Your task to perform on an android device: Open accessibility settings Image 0: 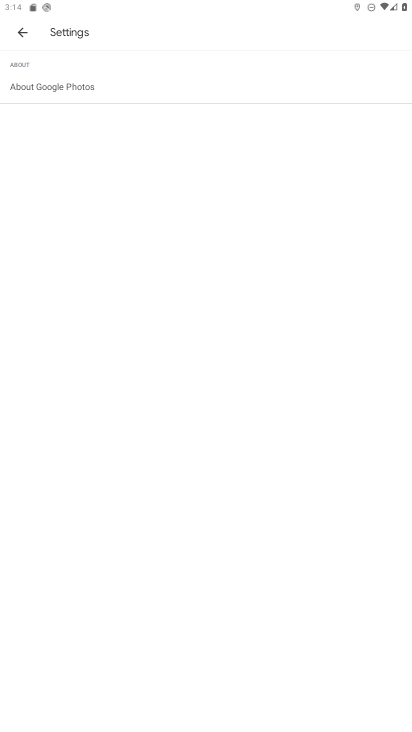
Step 0: press home button
Your task to perform on an android device: Open accessibility settings Image 1: 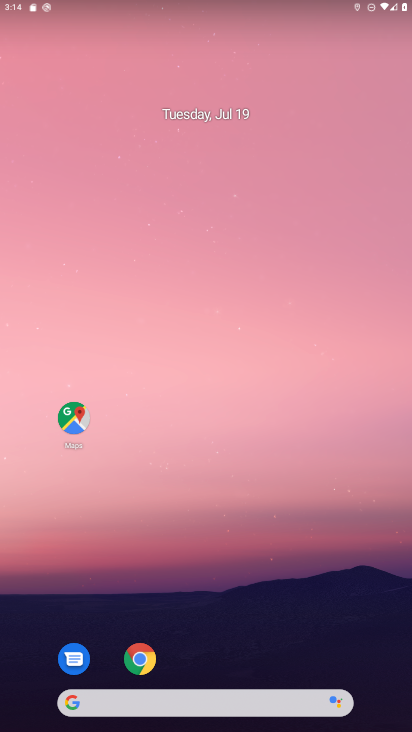
Step 1: drag from (279, 624) to (227, 99)
Your task to perform on an android device: Open accessibility settings Image 2: 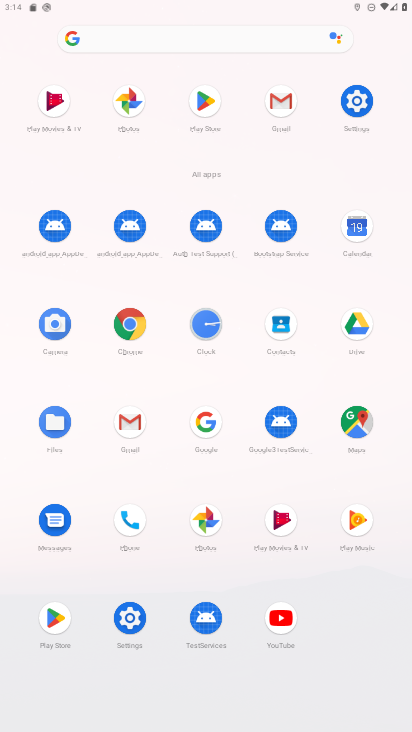
Step 2: click (358, 104)
Your task to perform on an android device: Open accessibility settings Image 3: 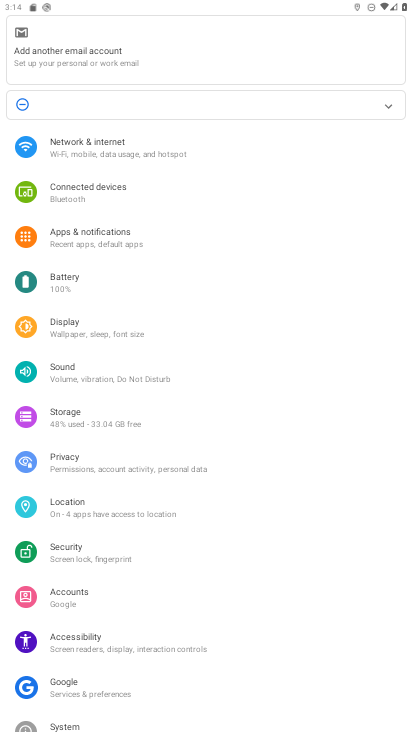
Step 3: click (104, 646)
Your task to perform on an android device: Open accessibility settings Image 4: 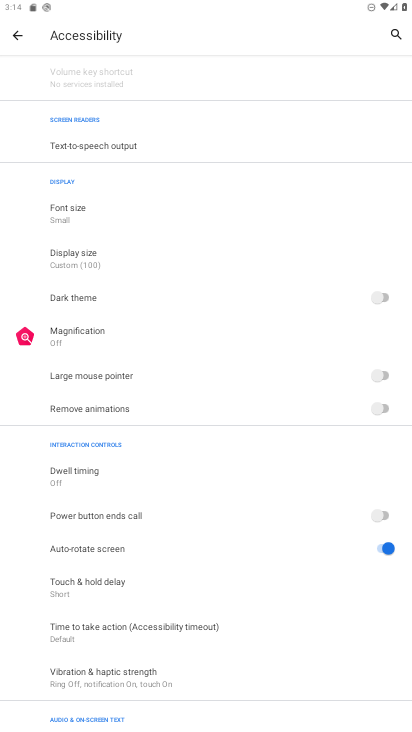
Step 4: task complete